Your task to perform on an android device: Open the web browser Image 0: 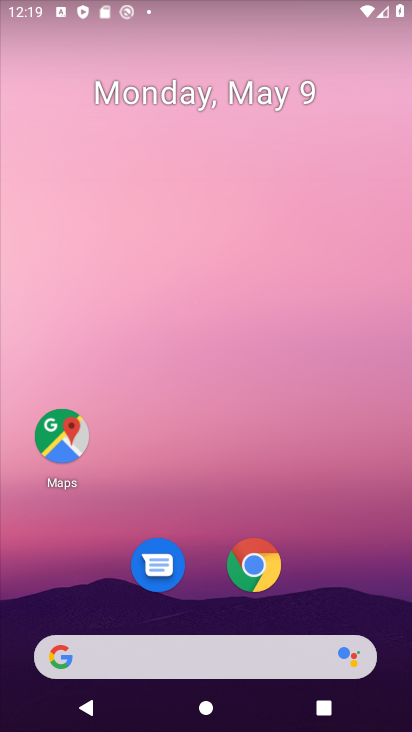
Step 0: drag from (250, 618) to (307, 71)
Your task to perform on an android device: Open the web browser Image 1: 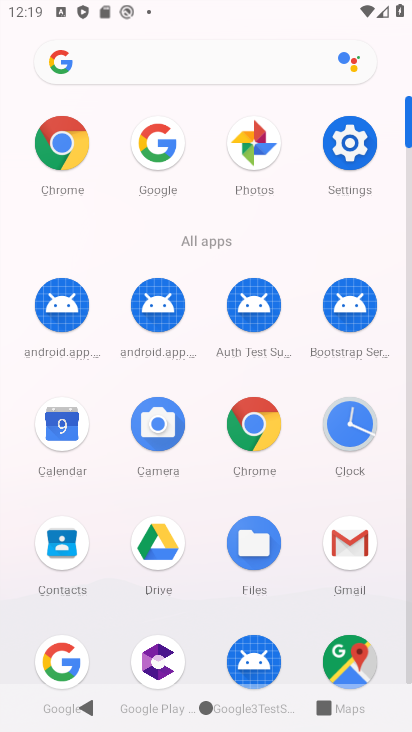
Step 1: click (65, 160)
Your task to perform on an android device: Open the web browser Image 2: 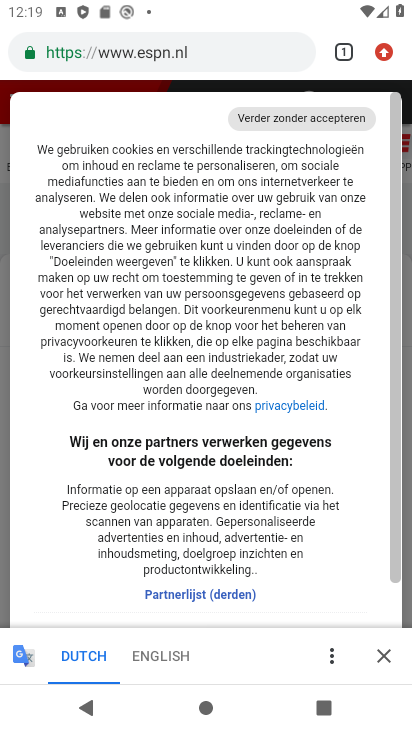
Step 2: task complete